Your task to perform on an android device: remove spam from my inbox in the gmail app Image 0: 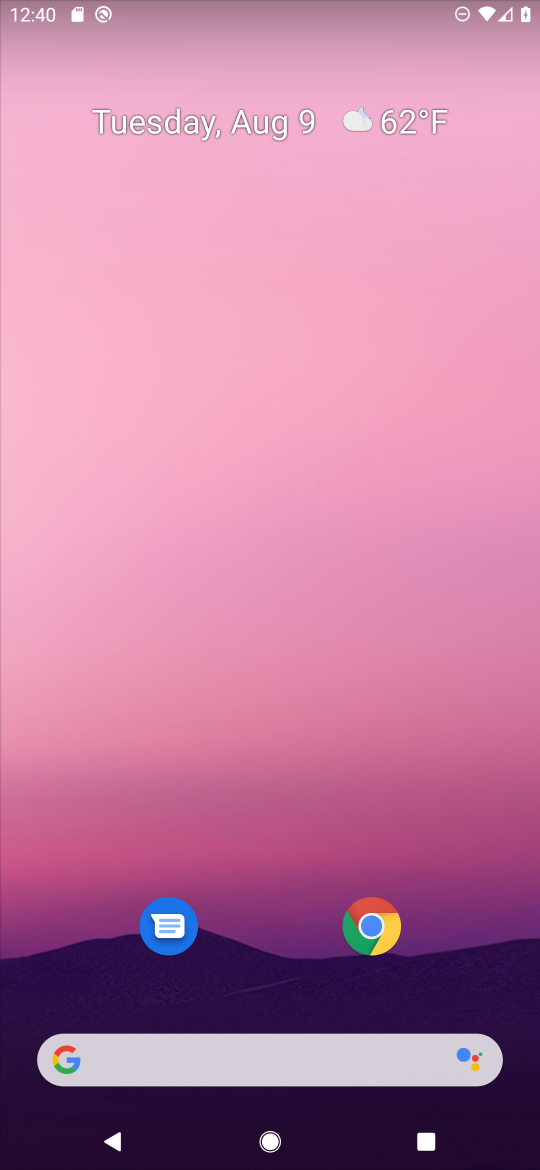
Step 0: drag from (45, 943) to (233, 250)
Your task to perform on an android device: remove spam from my inbox in the gmail app Image 1: 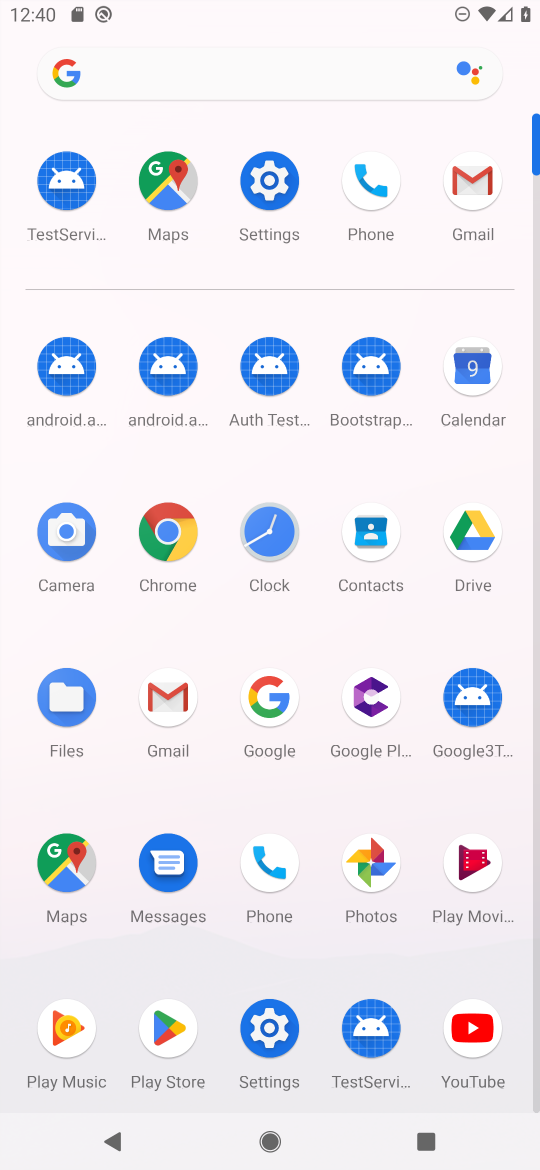
Step 1: click (142, 704)
Your task to perform on an android device: remove spam from my inbox in the gmail app Image 2: 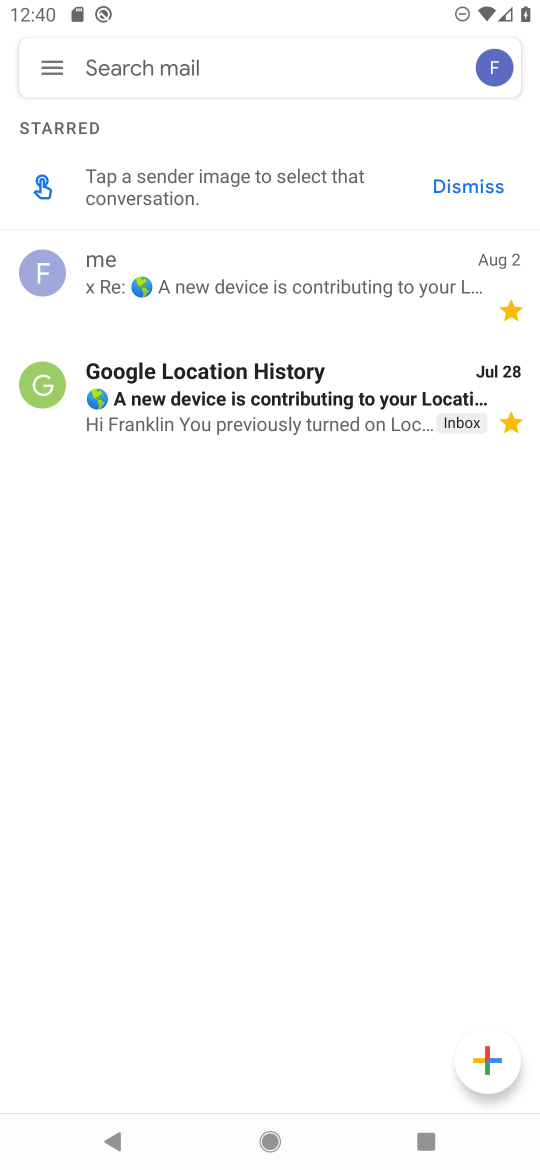
Step 2: click (63, 78)
Your task to perform on an android device: remove spam from my inbox in the gmail app Image 3: 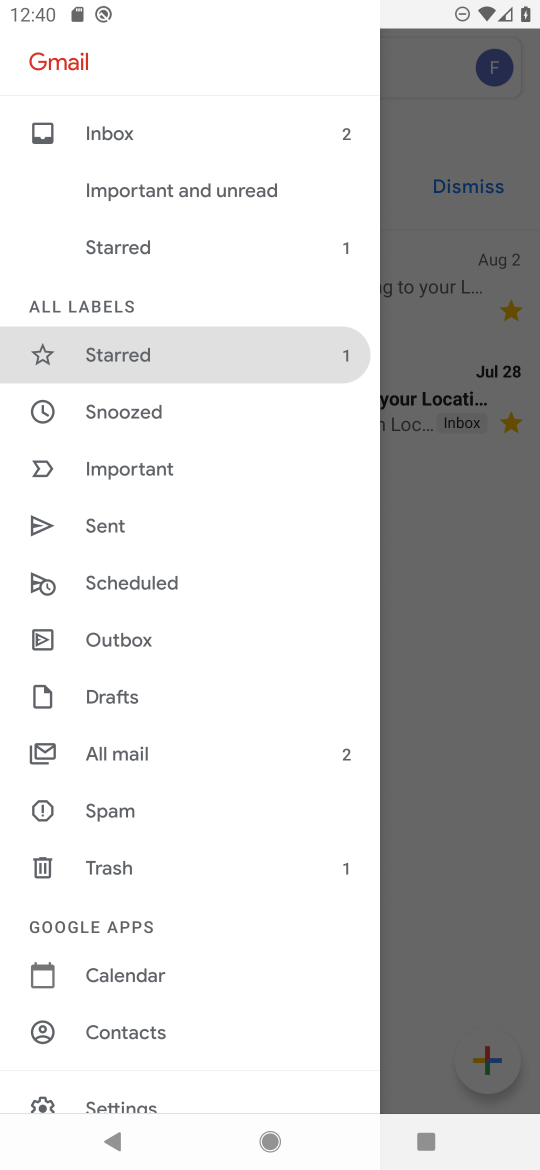
Step 3: drag from (34, 577) to (142, 239)
Your task to perform on an android device: remove spam from my inbox in the gmail app Image 4: 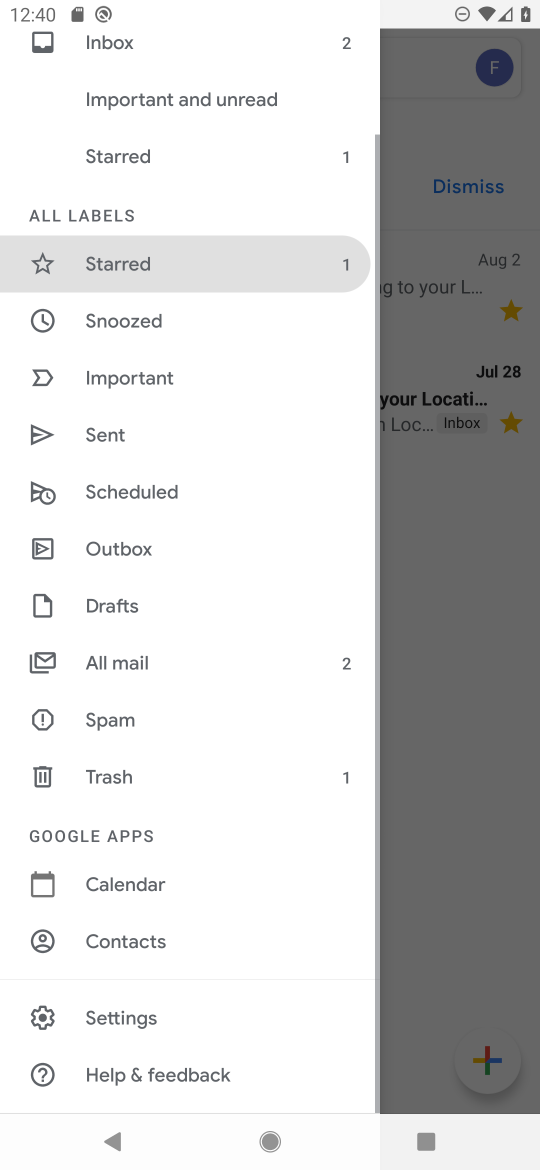
Step 4: click (99, 1021)
Your task to perform on an android device: remove spam from my inbox in the gmail app Image 5: 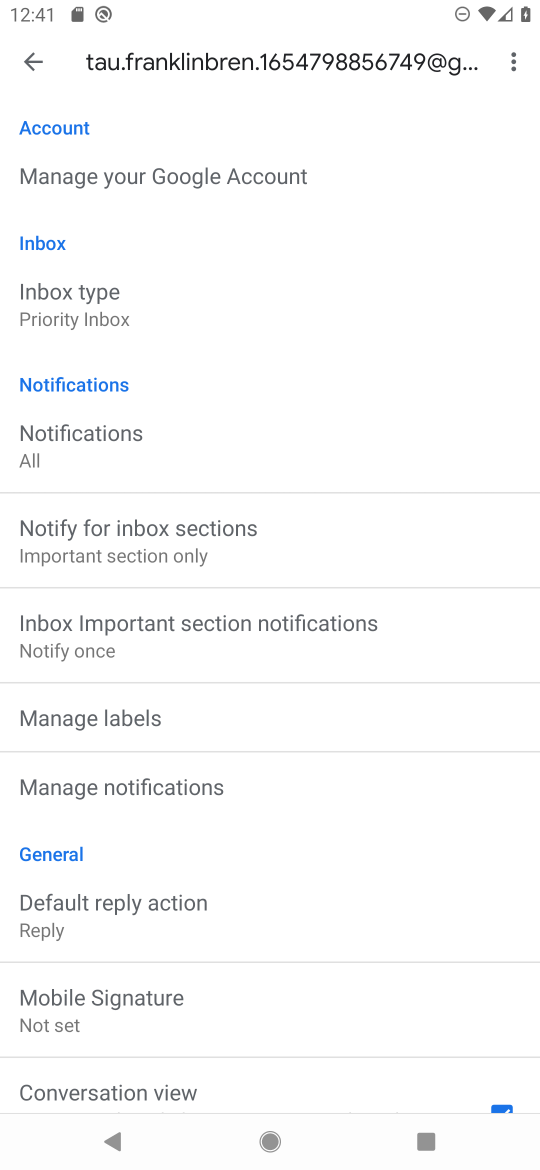
Step 5: task complete